Your task to perform on an android device: Search for sushi restaurants on Maps Image 0: 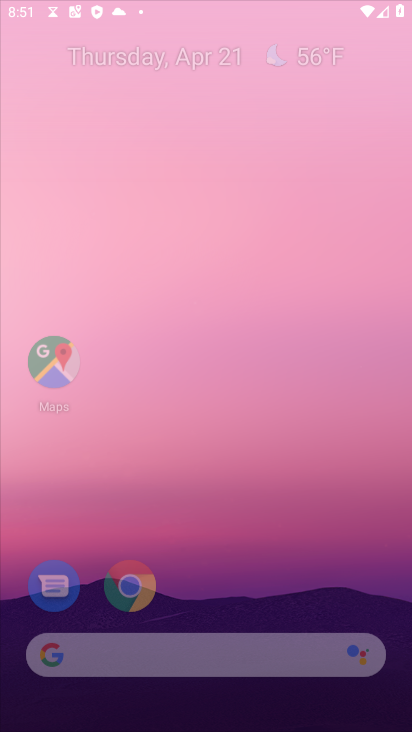
Step 0: click (257, 216)
Your task to perform on an android device: Search for sushi restaurants on Maps Image 1: 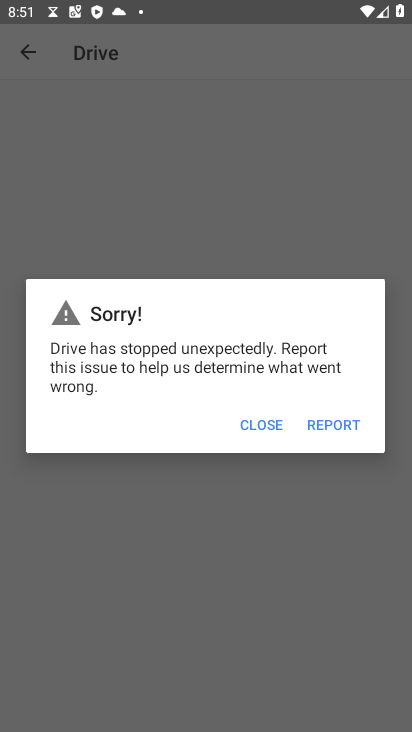
Step 1: press home button
Your task to perform on an android device: Search for sushi restaurants on Maps Image 2: 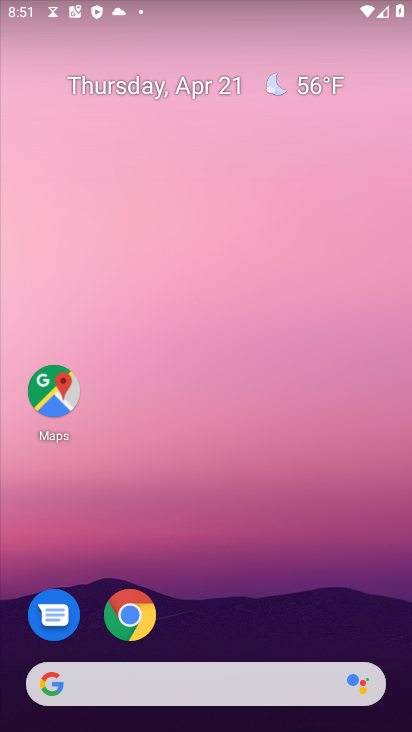
Step 2: click (54, 401)
Your task to perform on an android device: Search for sushi restaurants on Maps Image 3: 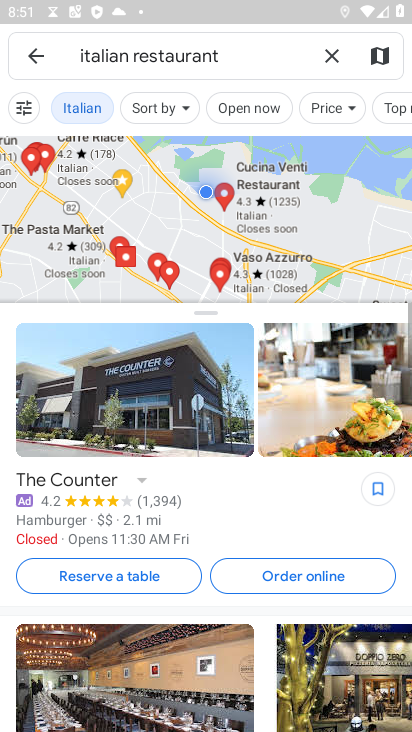
Step 3: click (333, 70)
Your task to perform on an android device: Search for sushi restaurants on Maps Image 4: 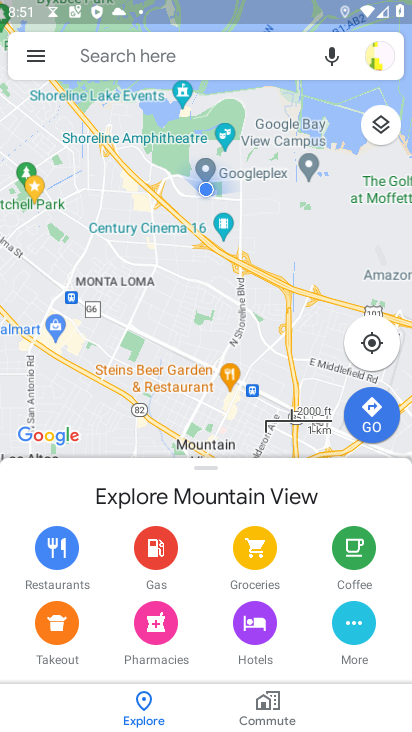
Step 4: click (198, 54)
Your task to perform on an android device: Search for sushi restaurants on Maps Image 5: 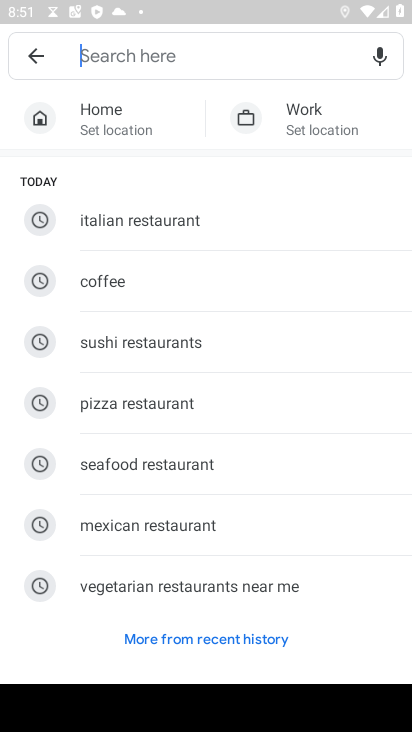
Step 5: click (133, 349)
Your task to perform on an android device: Search for sushi restaurants on Maps Image 6: 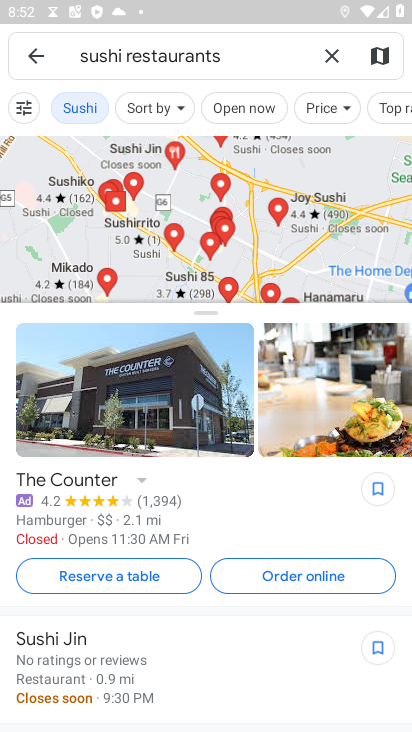
Step 6: task complete